Your task to perform on an android device: How do I get to the nearest Best Buy? Image 0: 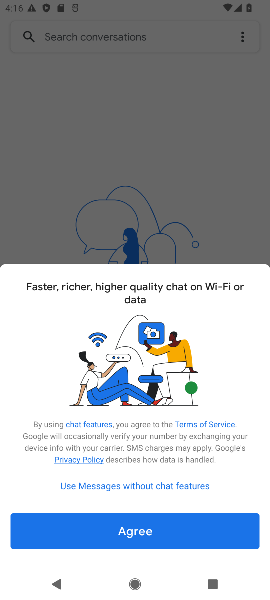
Step 0: press home button
Your task to perform on an android device: How do I get to the nearest Best Buy? Image 1: 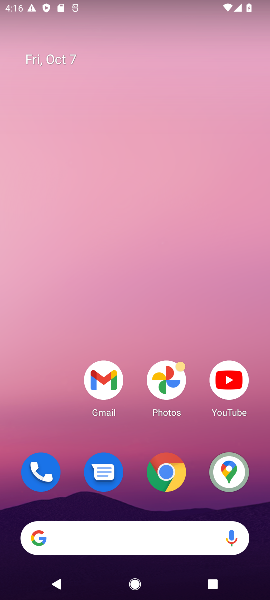
Step 1: click (171, 480)
Your task to perform on an android device: How do I get to the nearest Best Buy? Image 2: 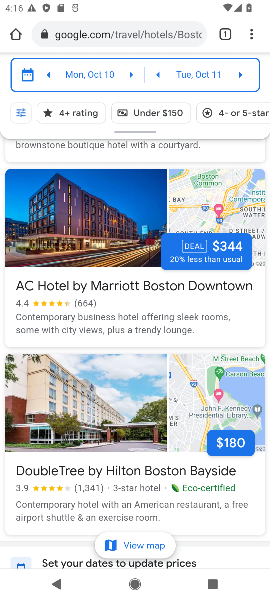
Step 2: click (120, 36)
Your task to perform on an android device: How do I get to the nearest Best Buy? Image 3: 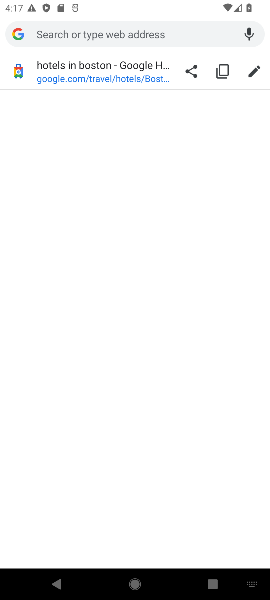
Step 3: type "How do I get to the nearest Best Buy?"
Your task to perform on an android device: How do I get to the nearest Best Buy? Image 4: 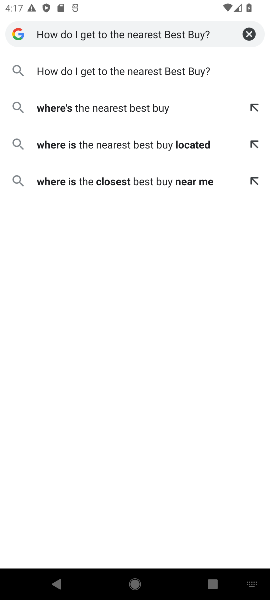
Step 4: click (188, 146)
Your task to perform on an android device: How do I get to the nearest Best Buy? Image 5: 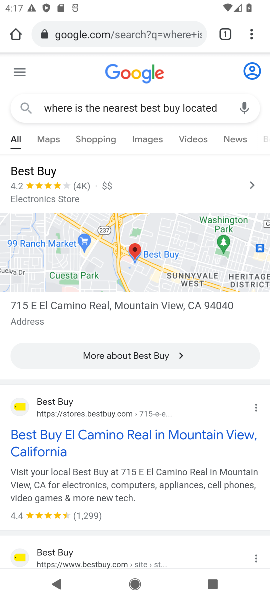
Step 5: click (136, 254)
Your task to perform on an android device: How do I get to the nearest Best Buy? Image 6: 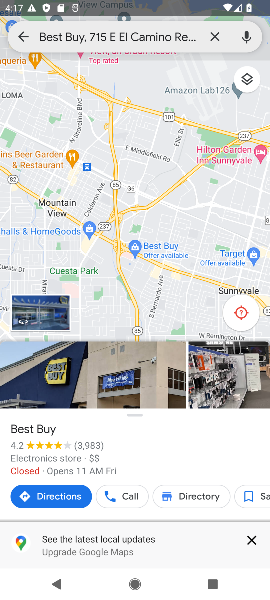
Step 6: click (47, 496)
Your task to perform on an android device: How do I get to the nearest Best Buy? Image 7: 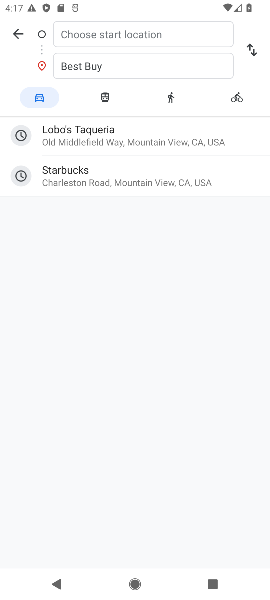
Step 7: task complete